Your task to perform on an android device: Open CNN.com Image 0: 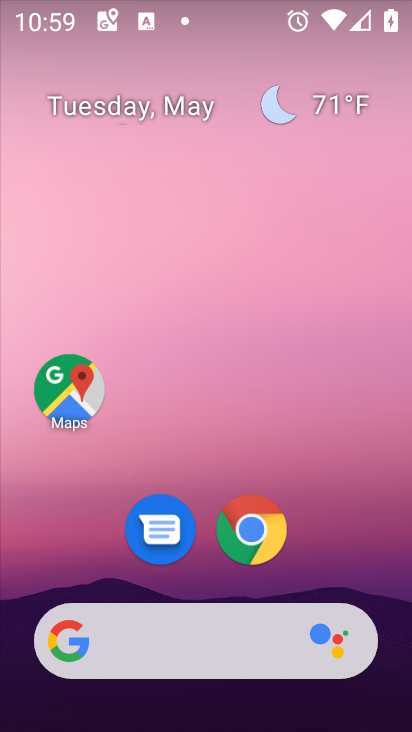
Step 0: drag from (214, 656) to (103, 139)
Your task to perform on an android device: Open CNN.com Image 1: 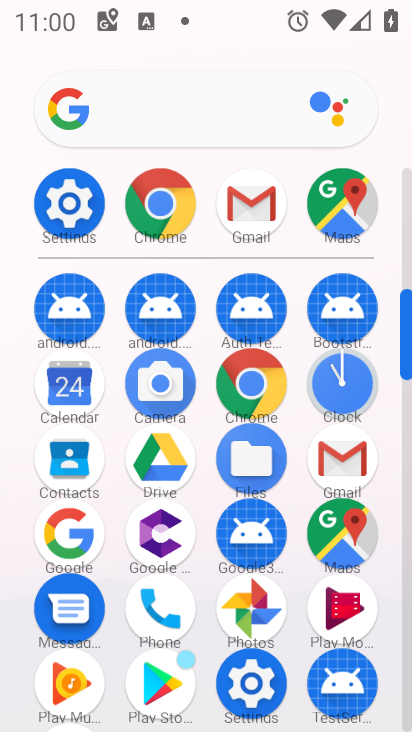
Step 1: click (155, 212)
Your task to perform on an android device: Open CNN.com Image 2: 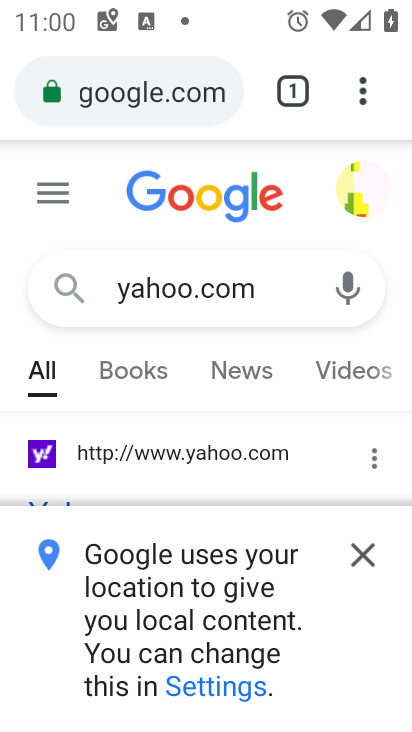
Step 2: click (185, 103)
Your task to perform on an android device: Open CNN.com Image 3: 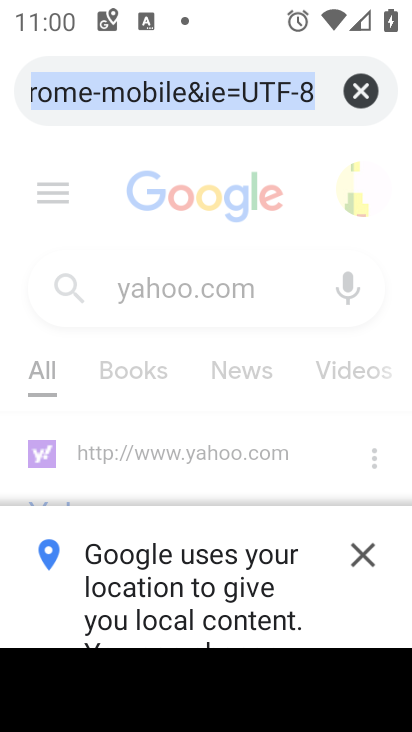
Step 3: type "cnn"
Your task to perform on an android device: Open CNN.com Image 4: 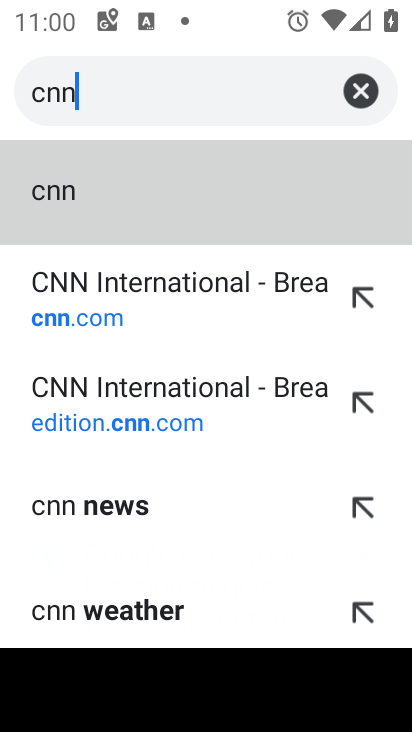
Step 4: click (227, 328)
Your task to perform on an android device: Open CNN.com Image 5: 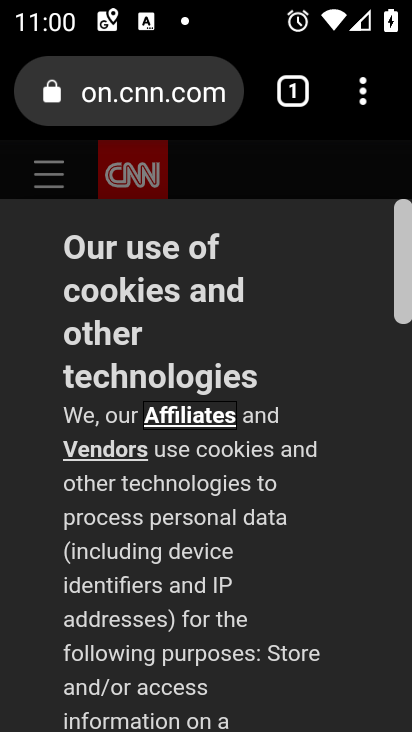
Step 5: task complete